Your task to perform on an android device: Open sound settings Image 0: 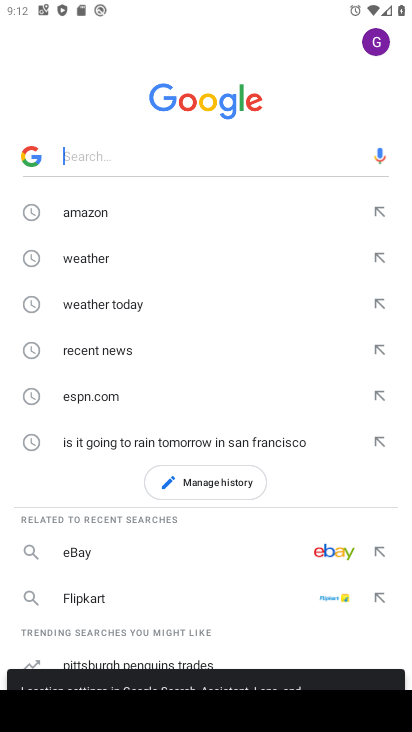
Step 0: press home button
Your task to perform on an android device: Open sound settings Image 1: 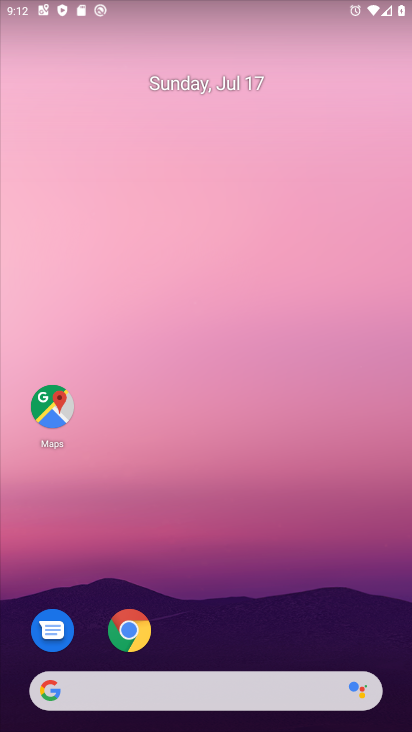
Step 1: drag from (313, 634) to (362, 69)
Your task to perform on an android device: Open sound settings Image 2: 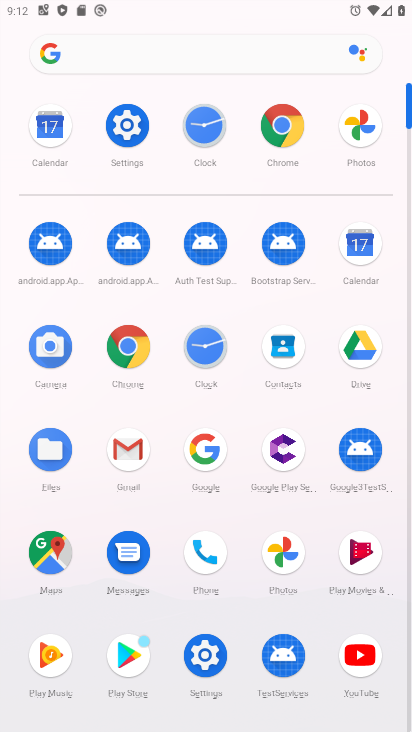
Step 2: click (131, 128)
Your task to perform on an android device: Open sound settings Image 3: 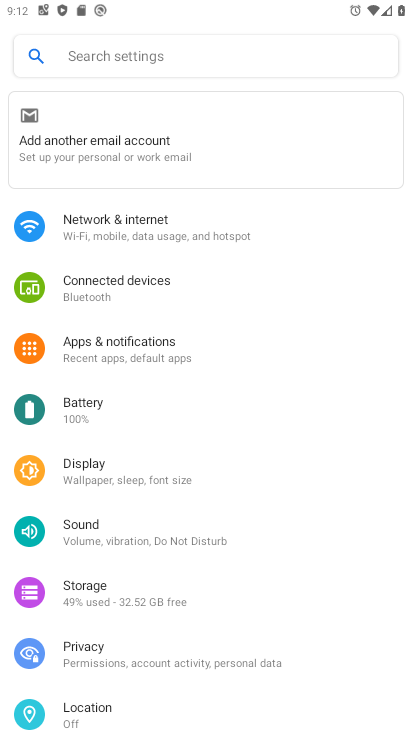
Step 3: drag from (346, 468) to (349, 405)
Your task to perform on an android device: Open sound settings Image 4: 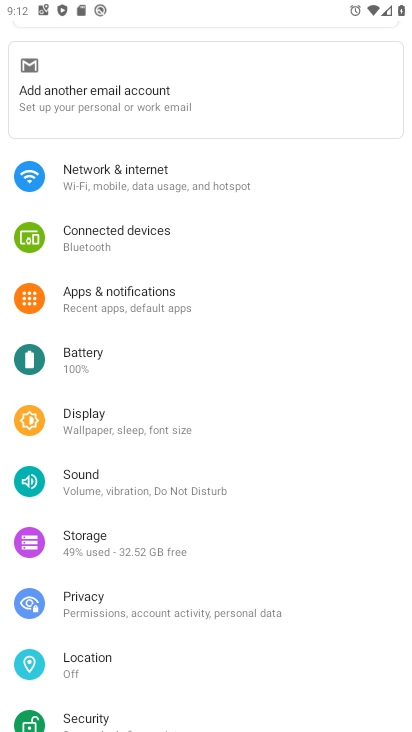
Step 4: drag from (351, 501) to (359, 390)
Your task to perform on an android device: Open sound settings Image 5: 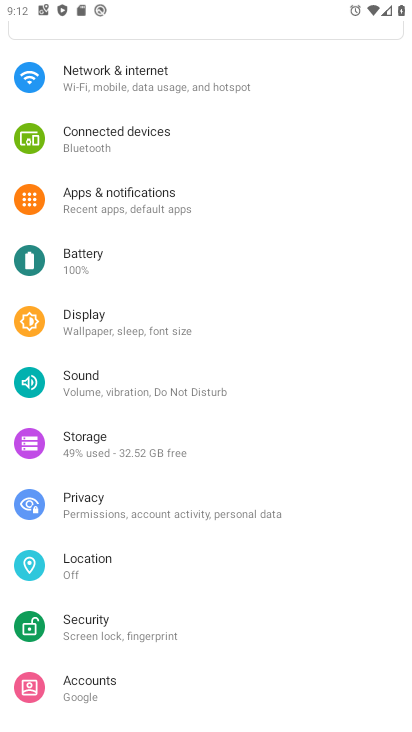
Step 5: drag from (337, 492) to (368, 263)
Your task to perform on an android device: Open sound settings Image 6: 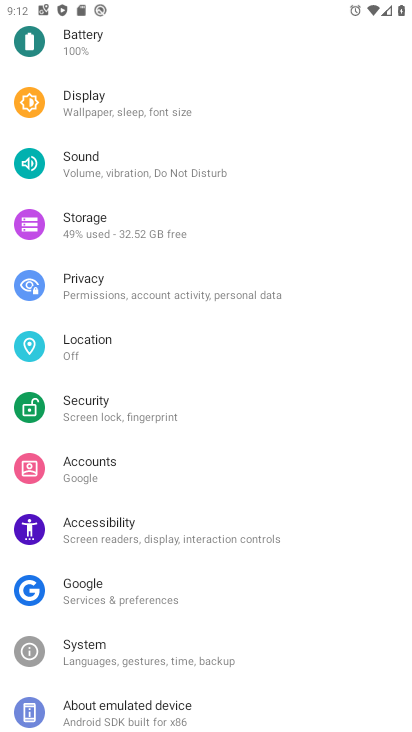
Step 6: drag from (352, 480) to (360, 339)
Your task to perform on an android device: Open sound settings Image 7: 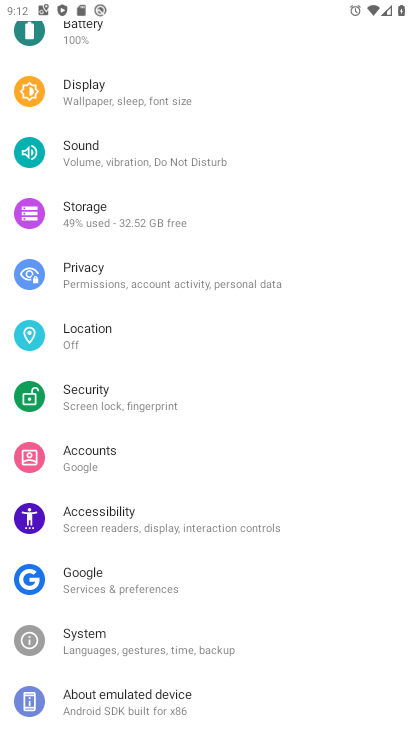
Step 7: drag from (350, 289) to (335, 398)
Your task to perform on an android device: Open sound settings Image 8: 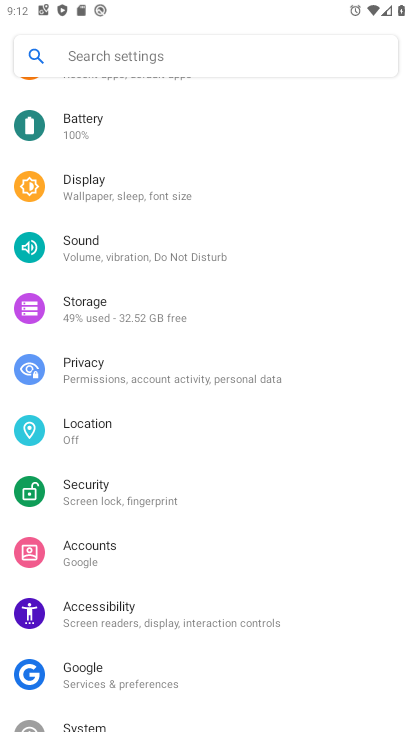
Step 8: drag from (337, 277) to (338, 397)
Your task to perform on an android device: Open sound settings Image 9: 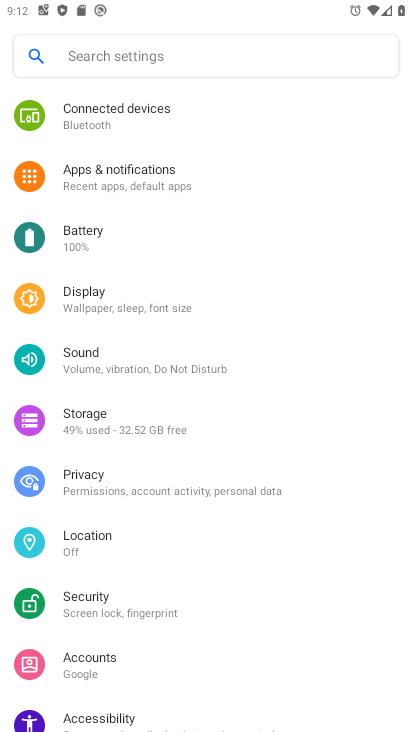
Step 9: drag from (340, 273) to (352, 485)
Your task to perform on an android device: Open sound settings Image 10: 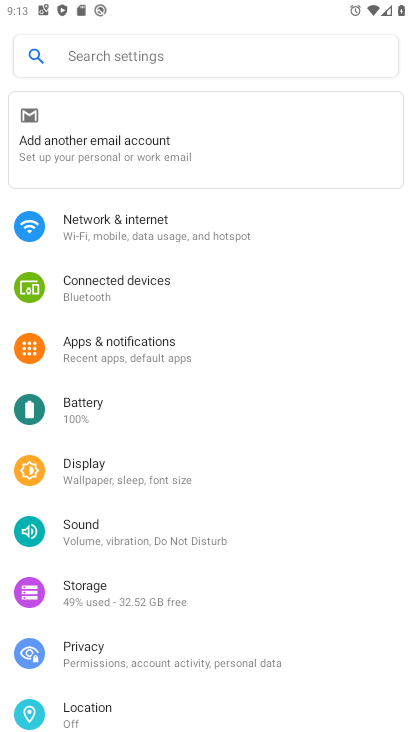
Step 10: click (269, 546)
Your task to perform on an android device: Open sound settings Image 11: 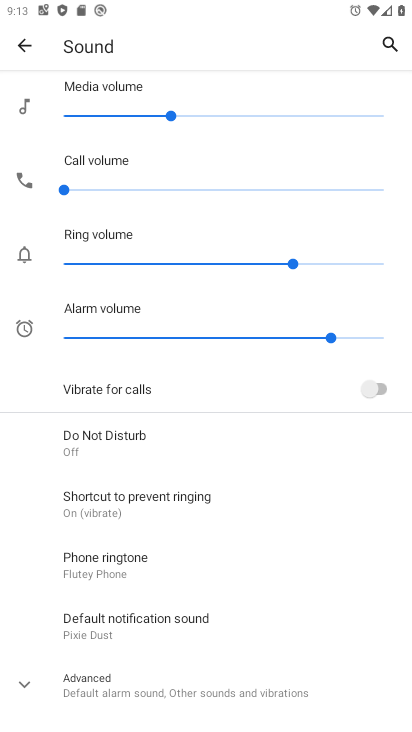
Step 11: drag from (331, 505) to (333, 428)
Your task to perform on an android device: Open sound settings Image 12: 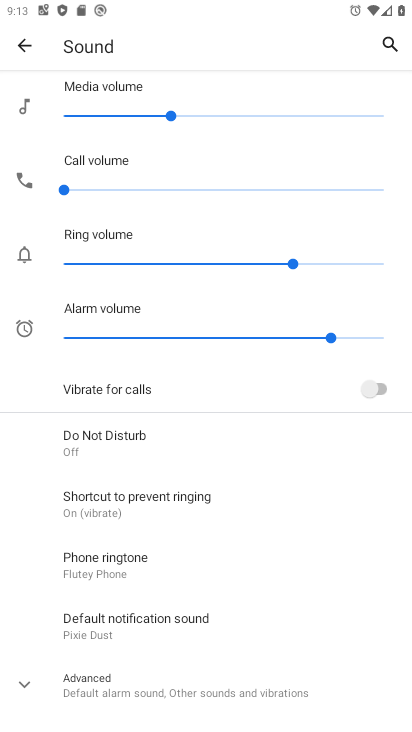
Step 12: click (241, 699)
Your task to perform on an android device: Open sound settings Image 13: 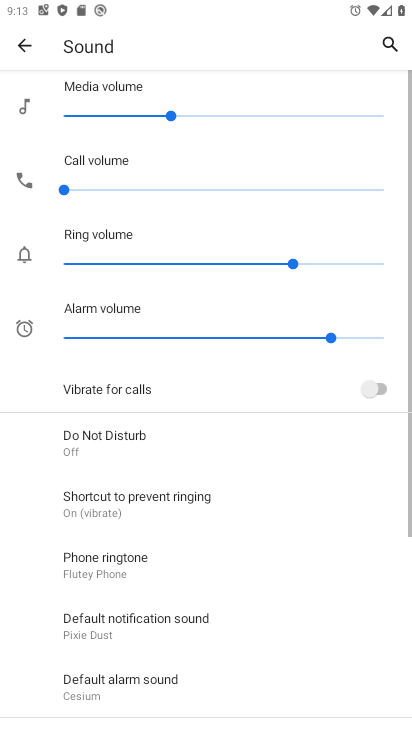
Step 13: task complete